Your task to perform on an android device: turn off improve location accuracy Image 0: 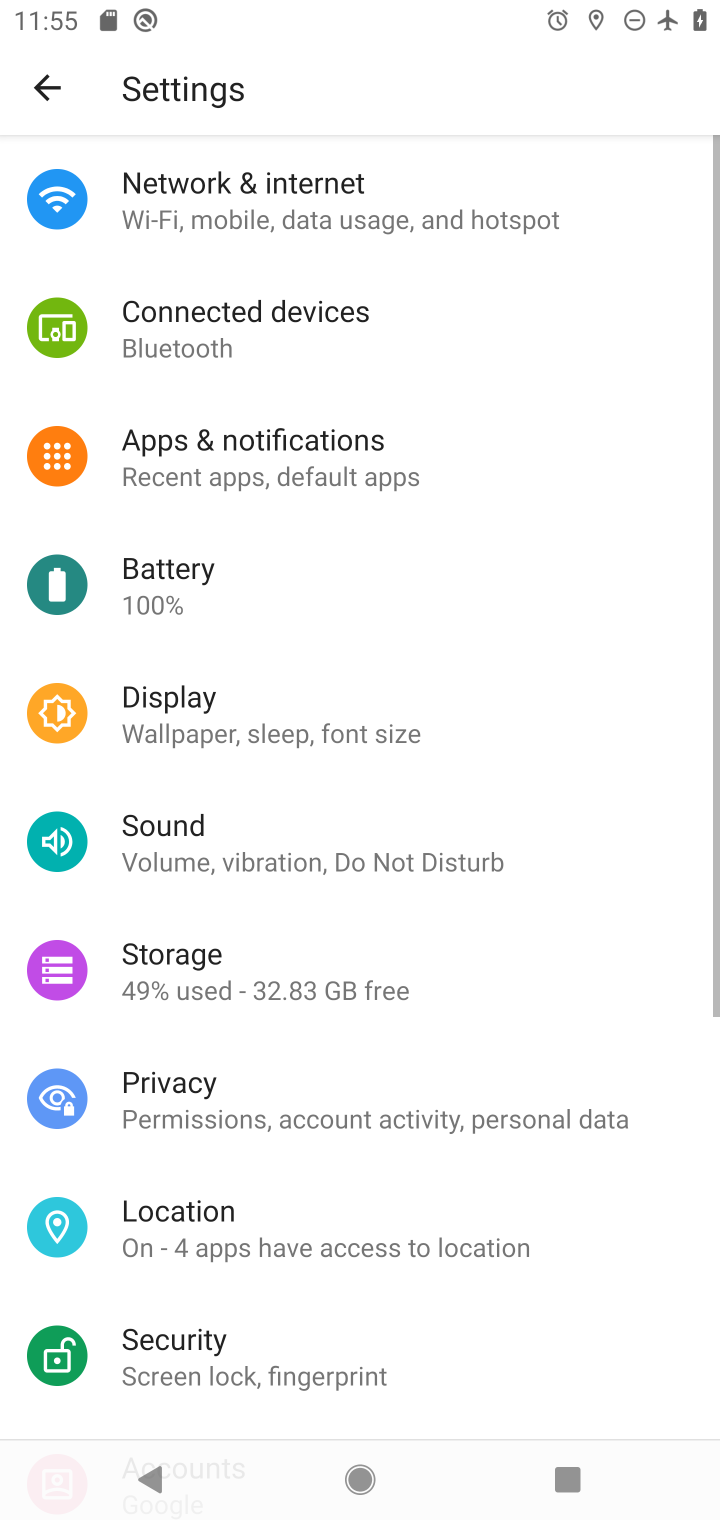
Step 0: click (231, 1180)
Your task to perform on an android device: turn off improve location accuracy Image 1: 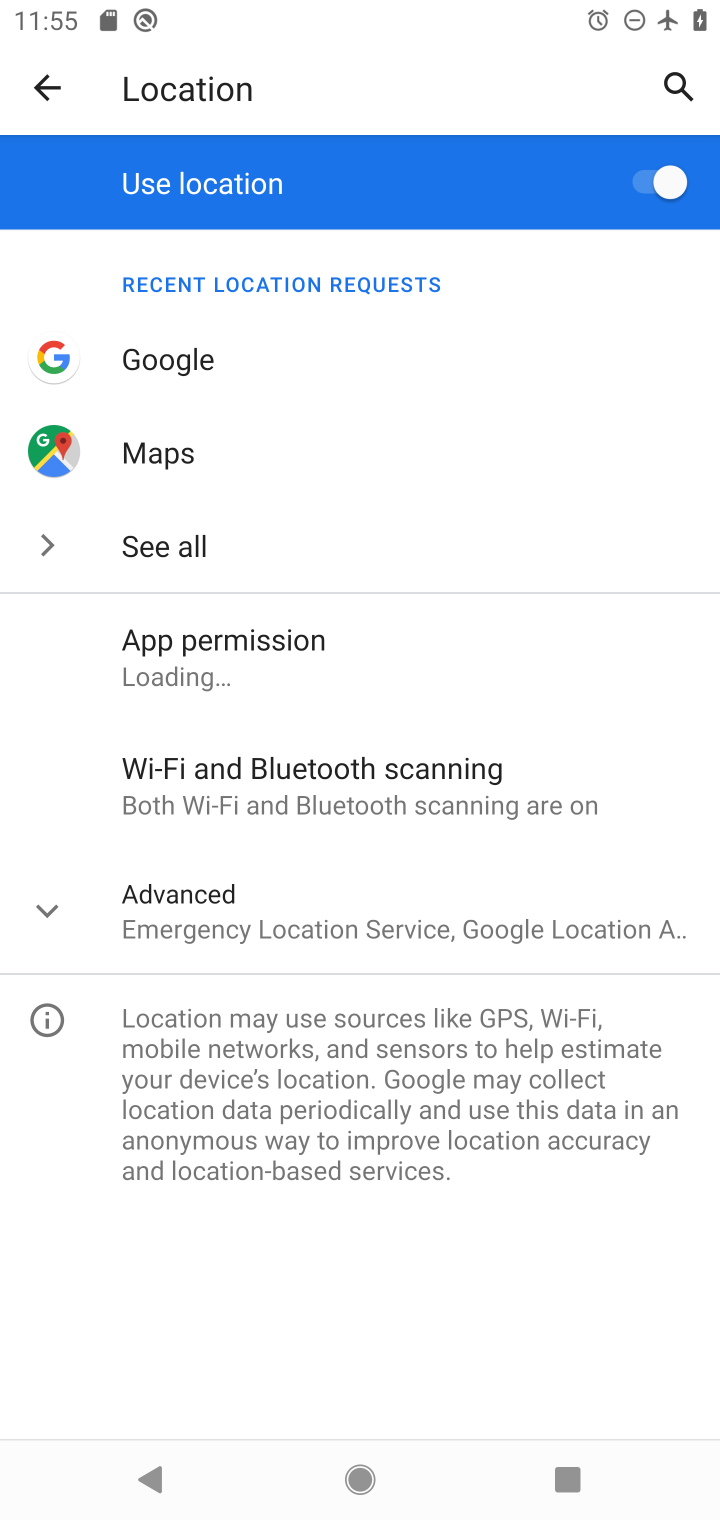
Step 1: click (145, 929)
Your task to perform on an android device: turn off improve location accuracy Image 2: 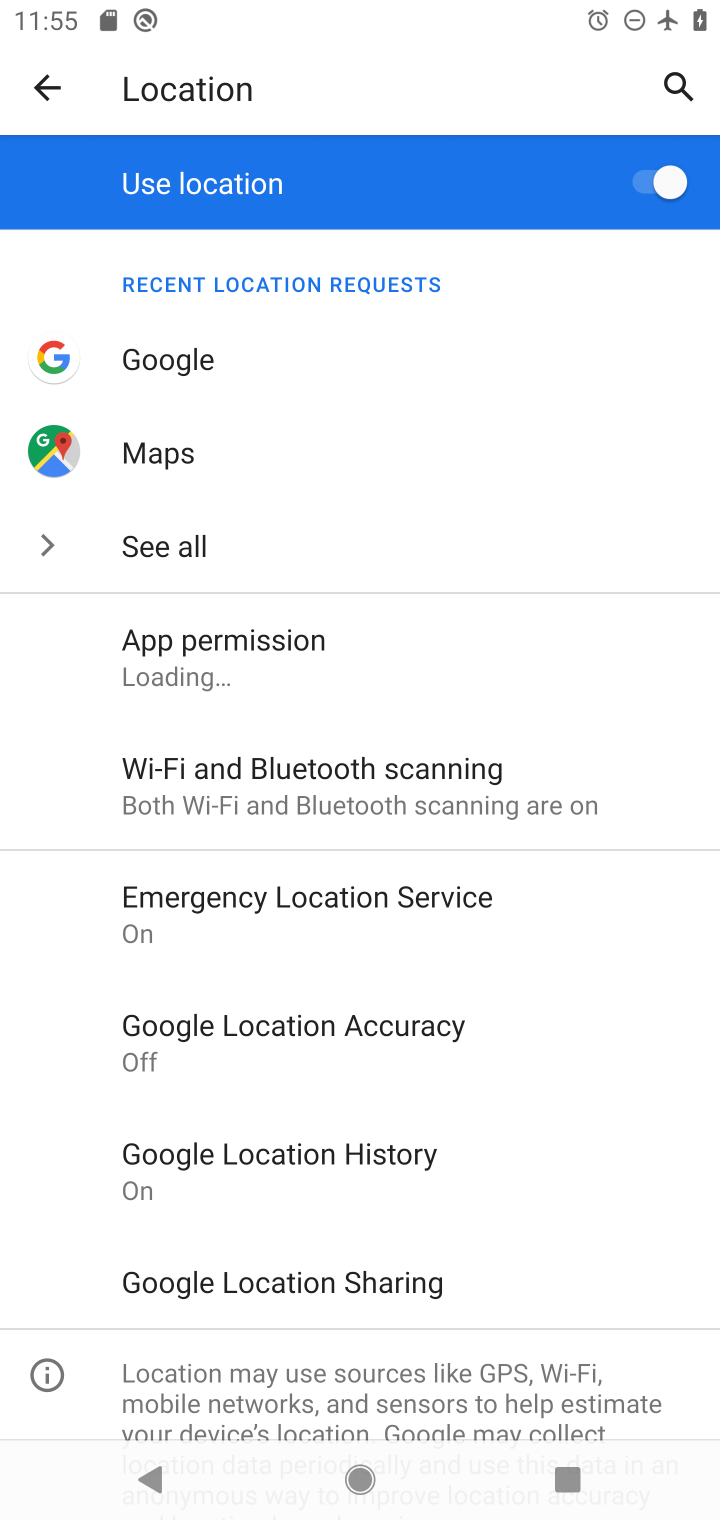
Step 2: click (341, 1003)
Your task to perform on an android device: turn off improve location accuracy Image 3: 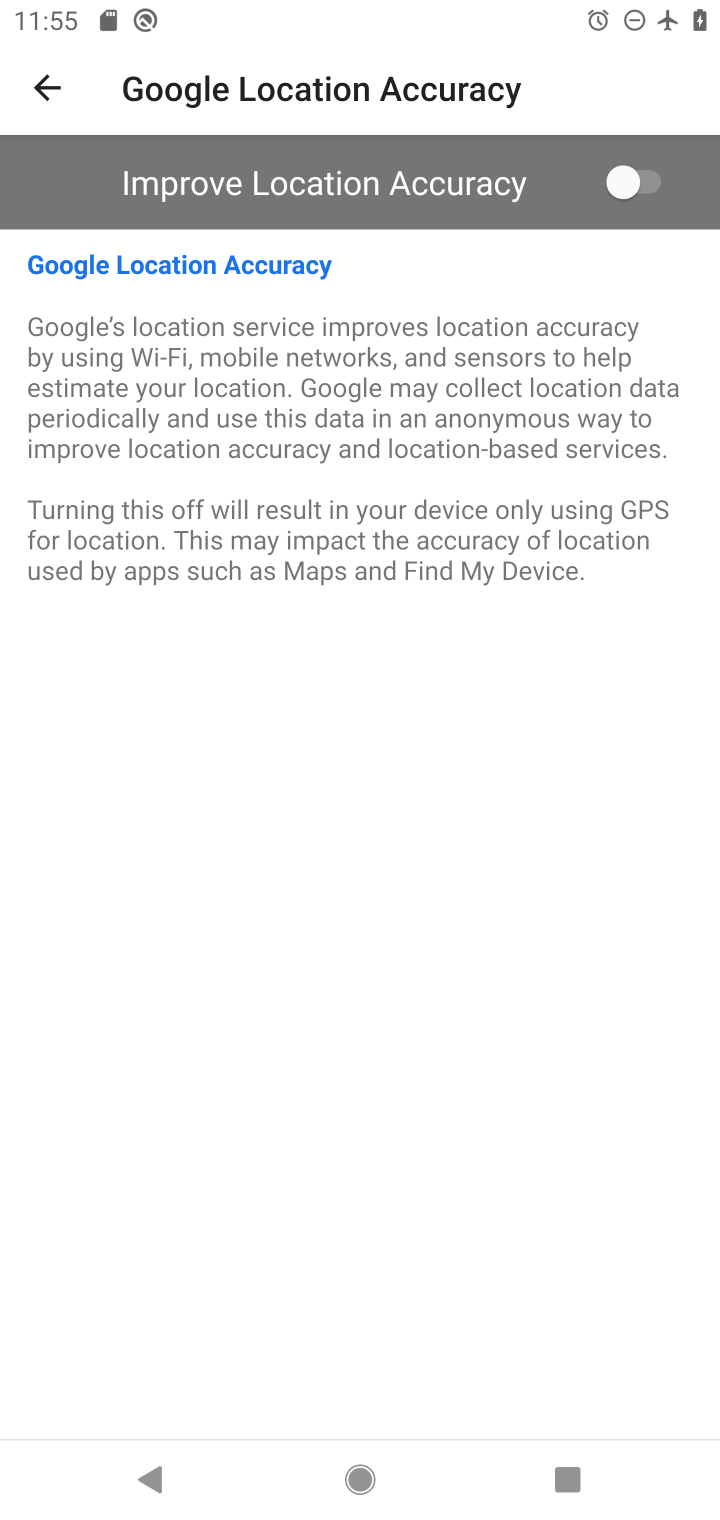
Step 3: task complete